Your task to perform on an android device: turn on bluetooth scan Image 0: 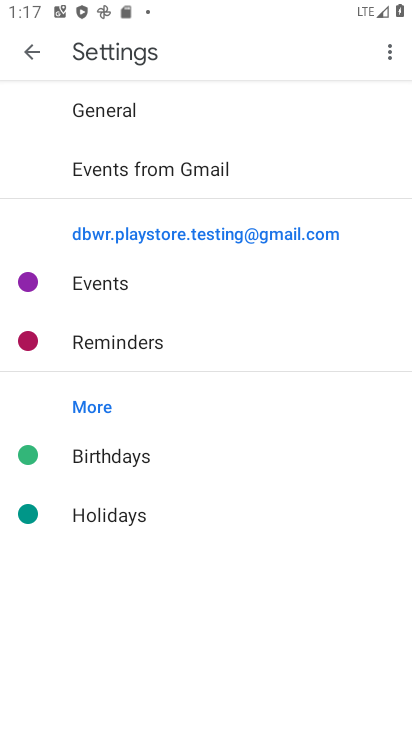
Step 0: press home button
Your task to perform on an android device: turn on bluetooth scan Image 1: 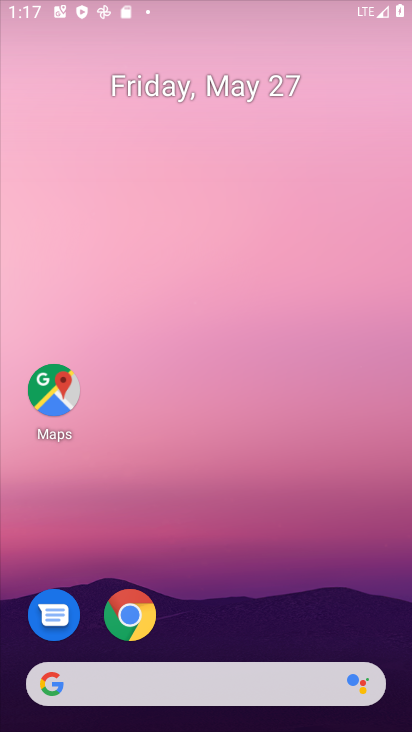
Step 1: drag from (221, 672) to (271, 36)
Your task to perform on an android device: turn on bluetooth scan Image 2: 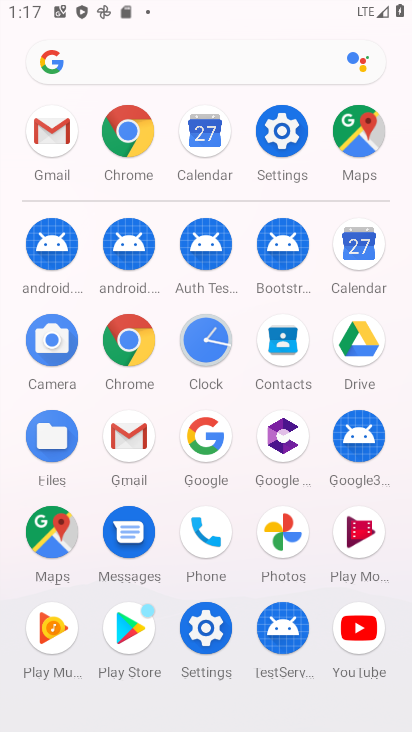
Step 2: click (292, 129)
Your task to perform on an android device: turn on bluetooth scan Image 3: 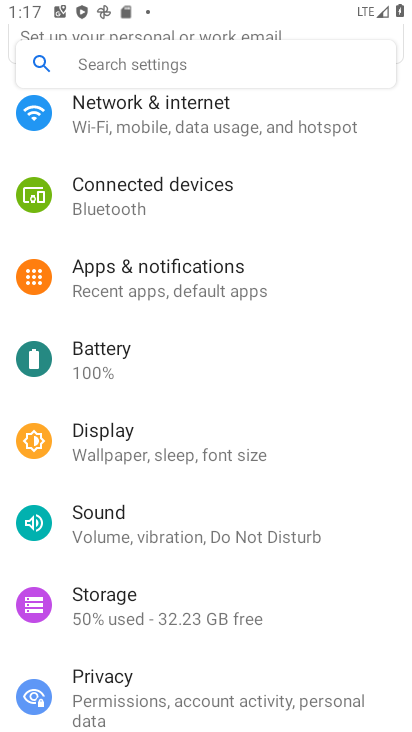
Step 3: drag from (175, 623) to (175, 503)
Your task to perform on an android device: turn on bluetooth scan Image 4: 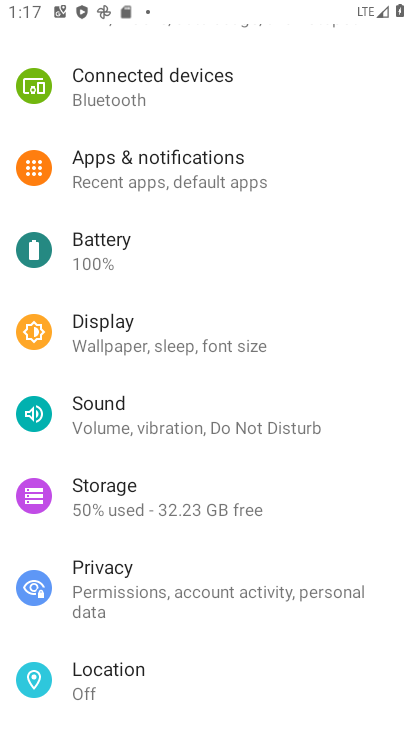
Step 4: click (146, 673)
Your task to perform on an android device: turn on bluetooth scan Image 5: 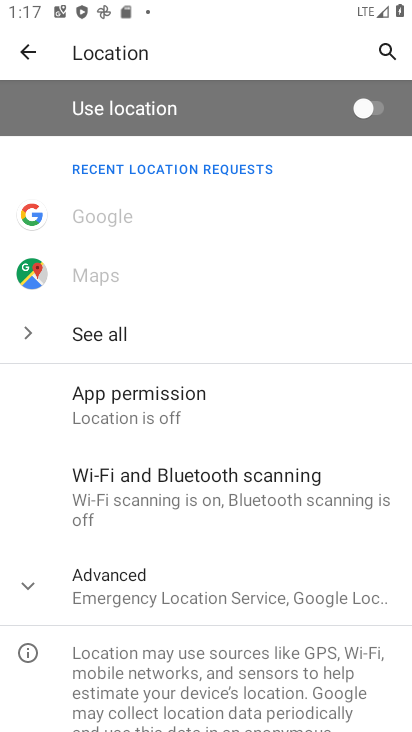
Step 5: click (245, 496)
Your task to perform on an android device: turn on bluetooth scan Image 6: 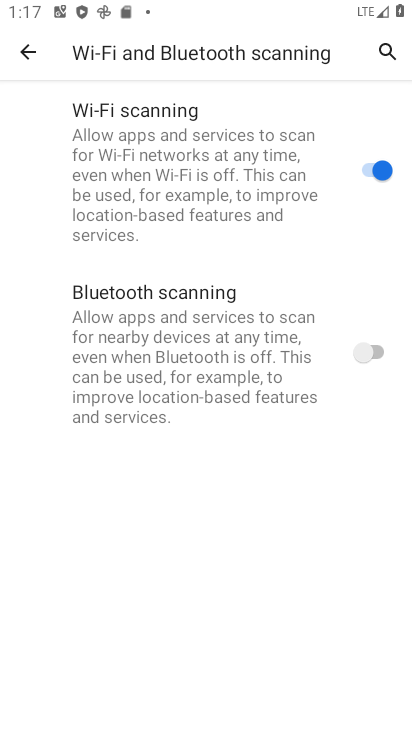
Step 6: click (373, 352)
Your task to perform on an android device: turn on bluetooth scan Image 7: 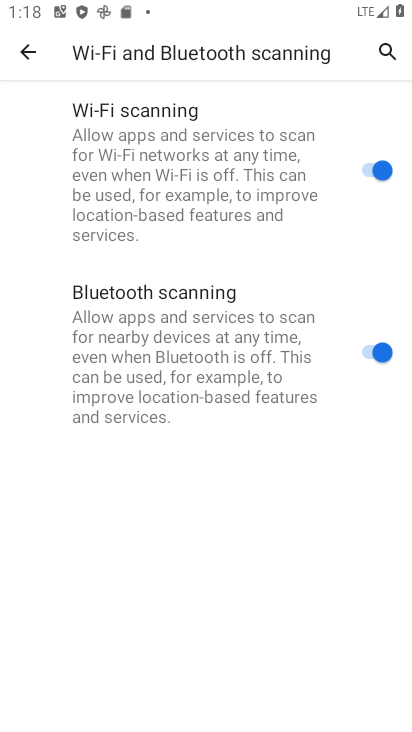
Step 7: task complete